Your task to perform on an android device: Add razer thresher to the cart on bestbuy.com Image 0: 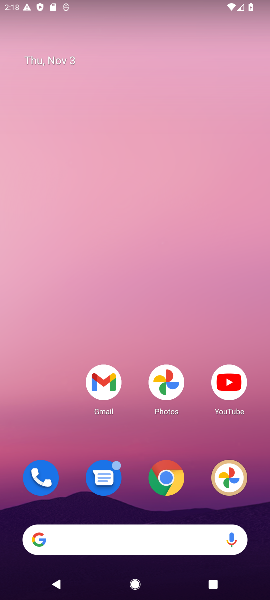
Step 0: click (170, 498)
Your task to perform on an android device: Add razer thresher to the cart on bestbuy.com Image 1: 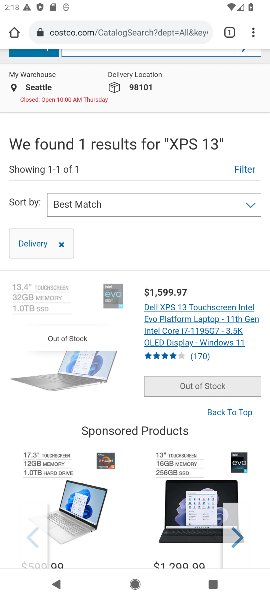
Step 1: click (137, 25)
Your task to perform on an android device: Add razer thresher to the cart on bestbuy.com Image 2: 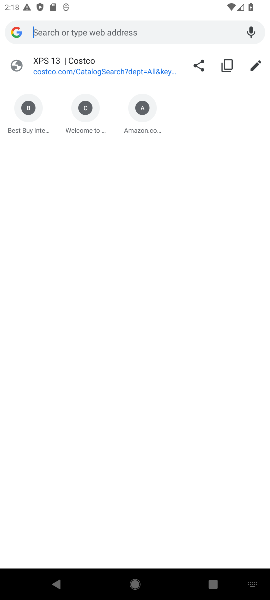
Step 2: type "bestbuy.com"
Your task to perform on an android device: Add razer thresher to the cart on bestbuy.com Image 3: 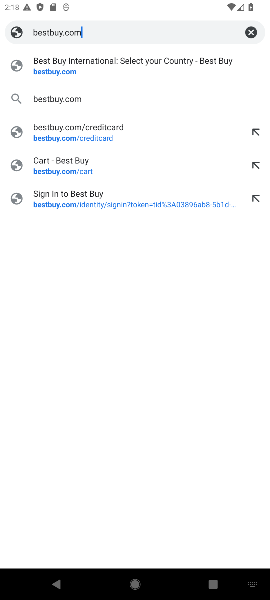
Step 3: click (61, 71)
Your task to perform on an android device: Add razer thresher to the cart on bestbuy.com Image 4: 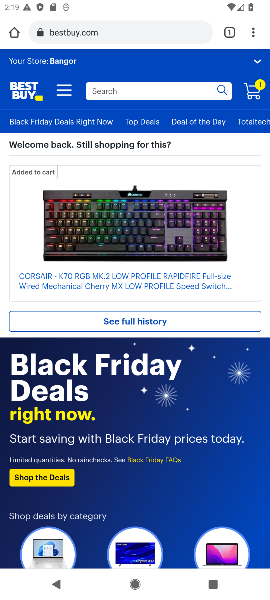
Step 4: click (138, 86)
Your task to perform on an android device: Add razer thresher to the cart on bestbuy.com Image 5: 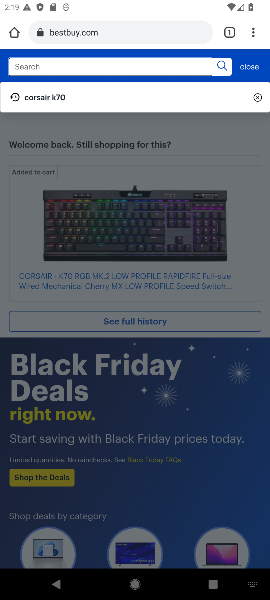
Step 5: type "razer thresher"
Your task to perform on an android device: Add razer thresher to the cart on bestbuy.com Image 6: 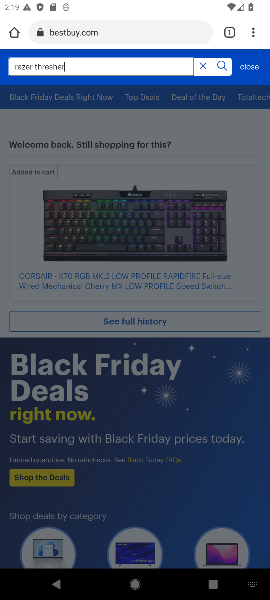
Step 6: click (221, 69)
Your task to perform on an android device: Add razer thresher to the cart on bestbuy.com Image 7: 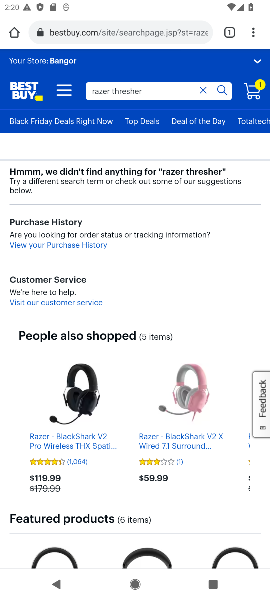
Step 7: task complete